Your task to perform on an android device: What's the US dollar exchange rateagainst the Swiss Franc? Image 0: 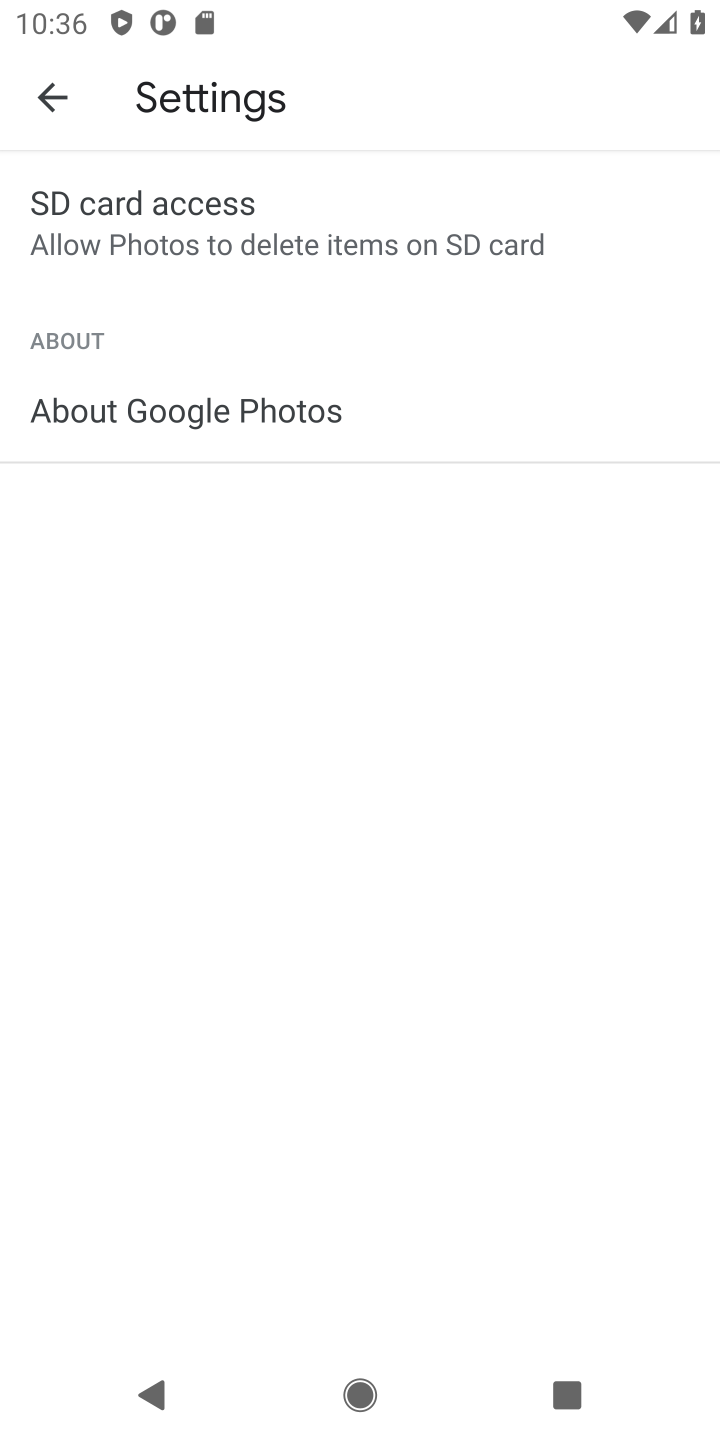
Step 0: press home button
Your task to perform on an android device: What's the US dollar exchange rateagainst the Swiss Franc? Image 1: 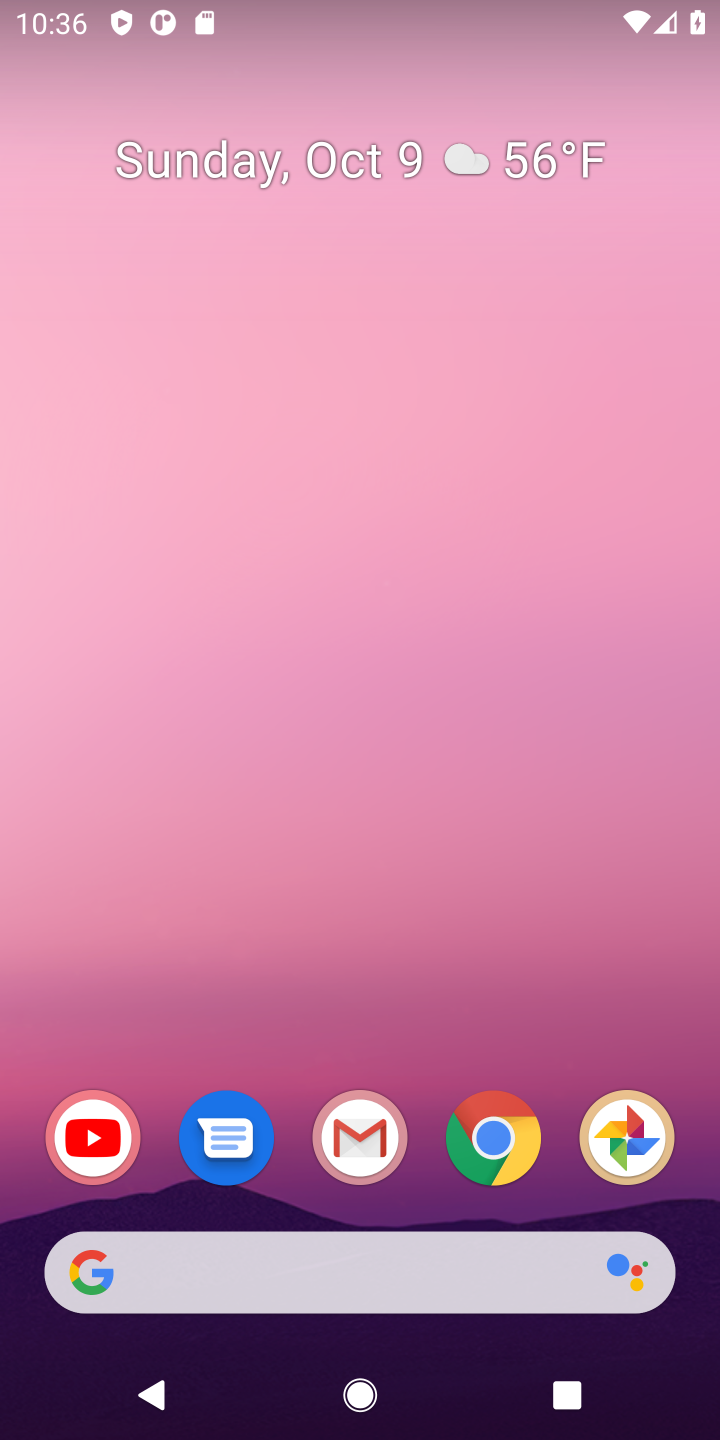
Step 1: drag from (453, 1056) to (489, 129)
Your task to perform on an android device: What's the US dollar exchange rateagainst the Swiss Franc? Image 2: 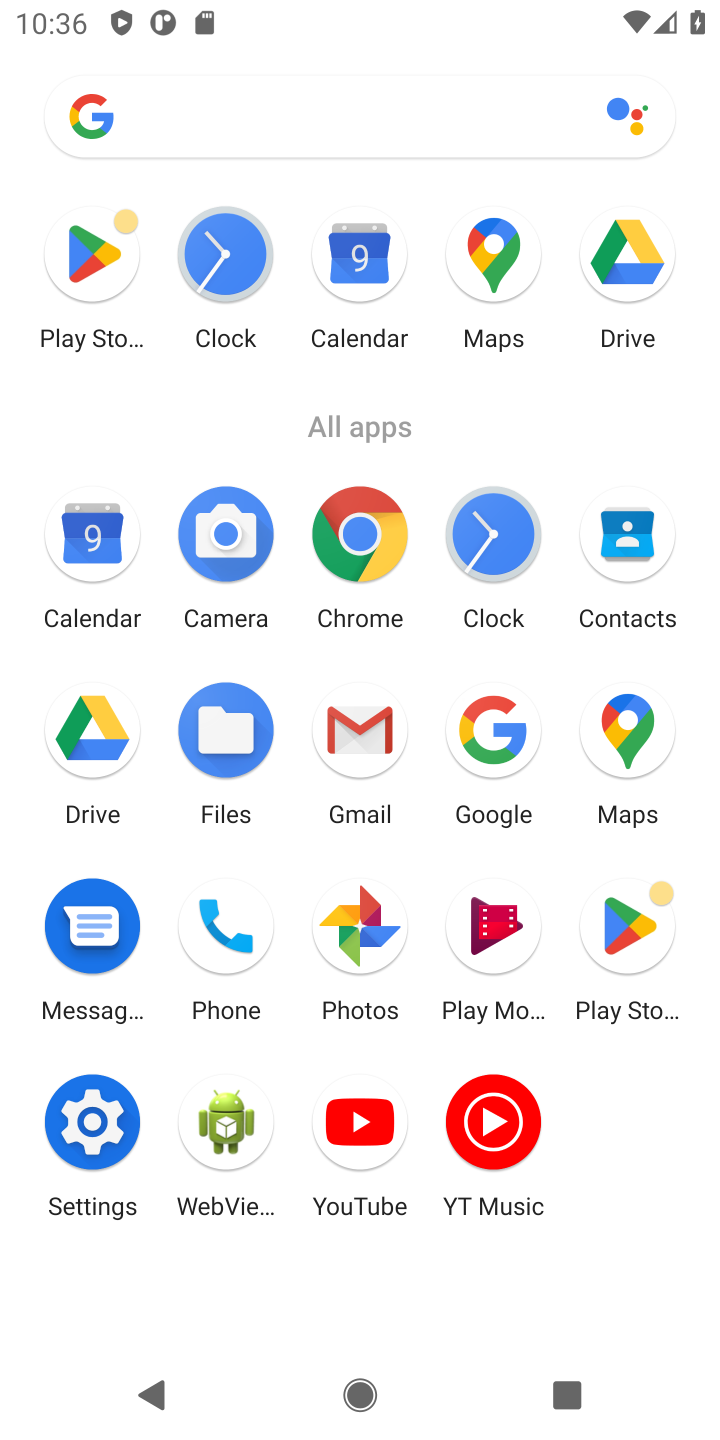
Step 2: click (348, 538)
Your task to perform on an android device: What's the US dollar exchange rateagainst the Swiss Franc? Image 3: 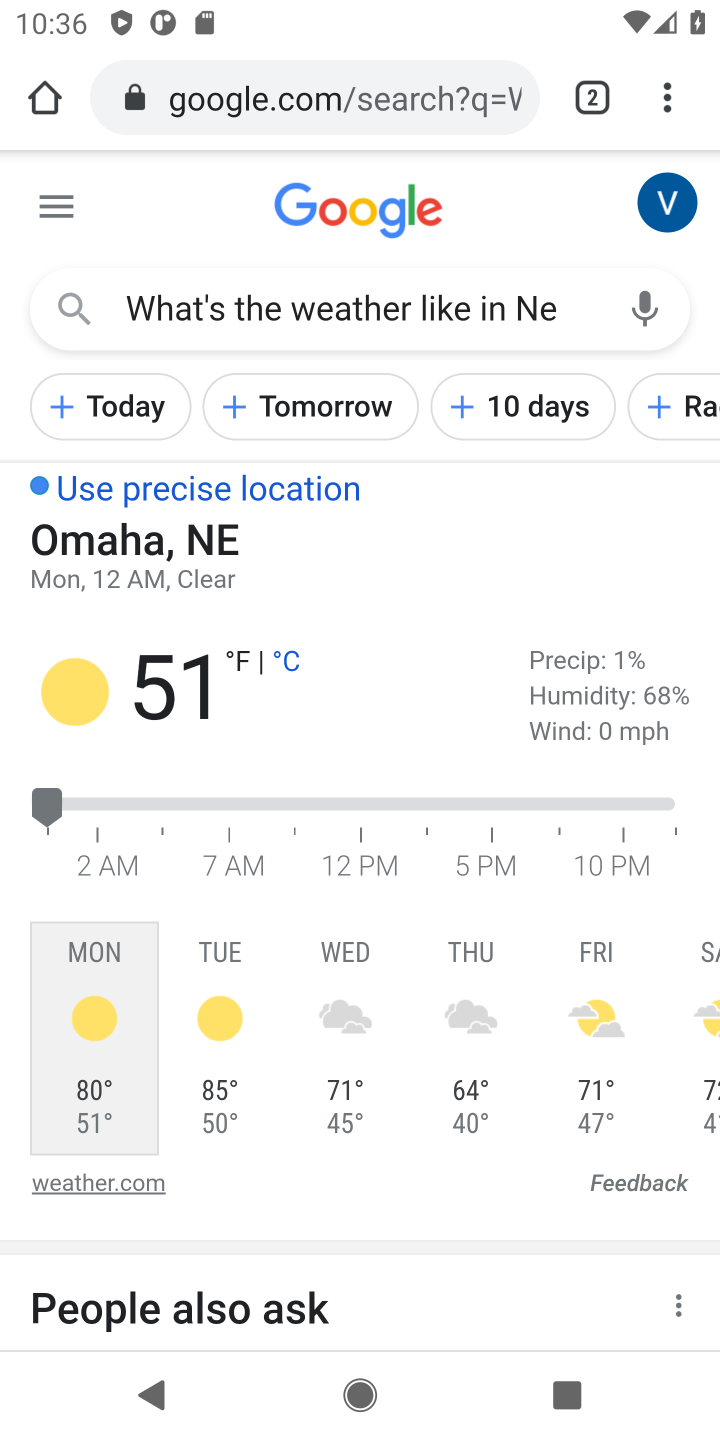
Step 3: click (561, 293)
Your task to perform on an android device: What's the US dollar exchange rateagainst the Swiss Franc? Image 4: 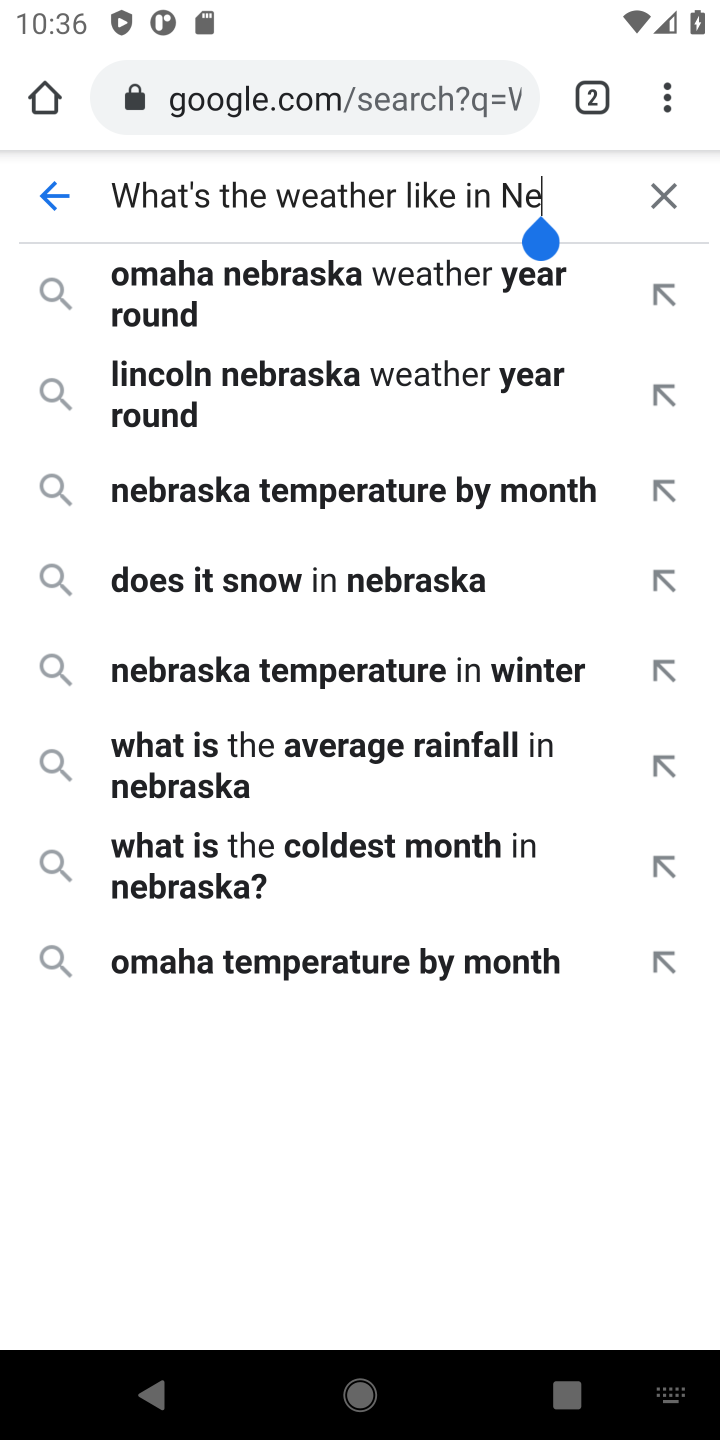
Step 4: click (435, 96)
Your task to perform on an android device: What's the US dollar exchange rateagainst the Swiss Franc? Image 5: 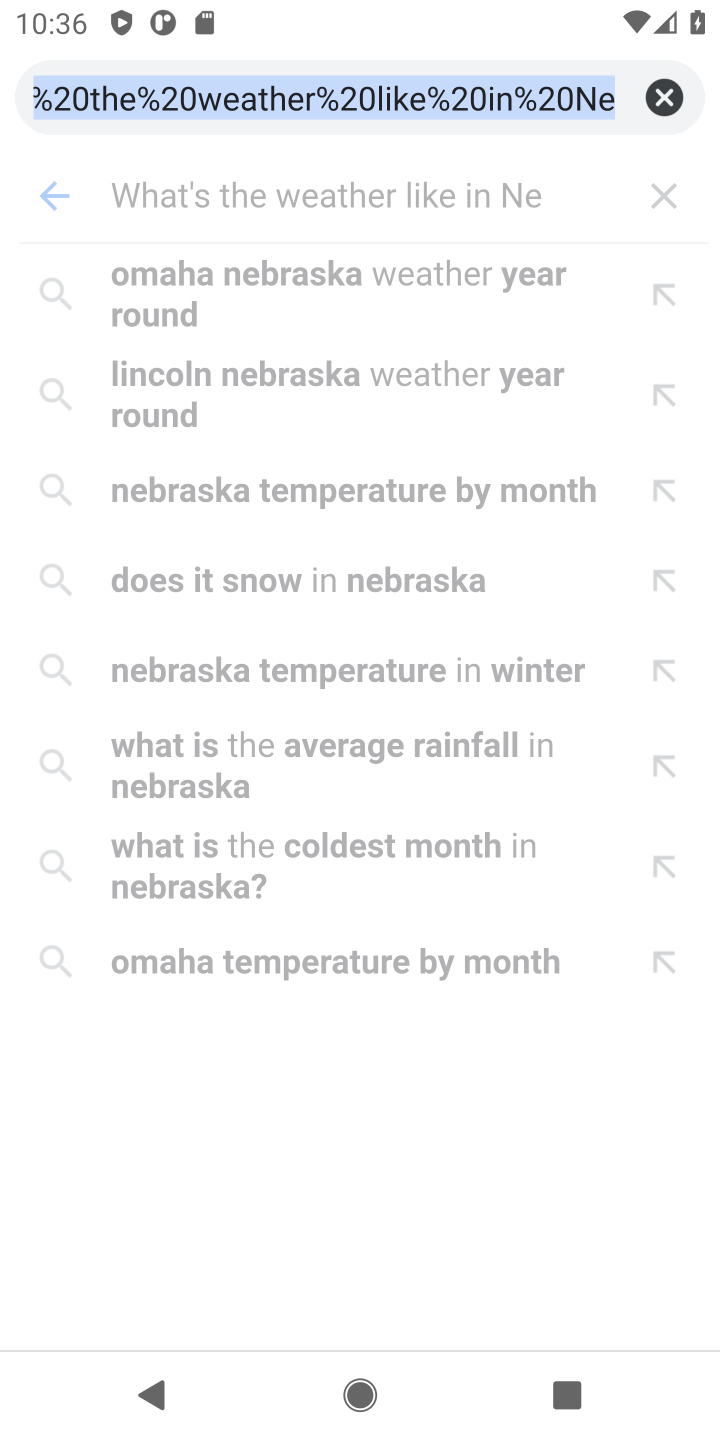
Step 5: click (655, 87)
Your task to perform on an android device: What's the US dollar exchange rateagainst the Swiss Franc? Image 6: 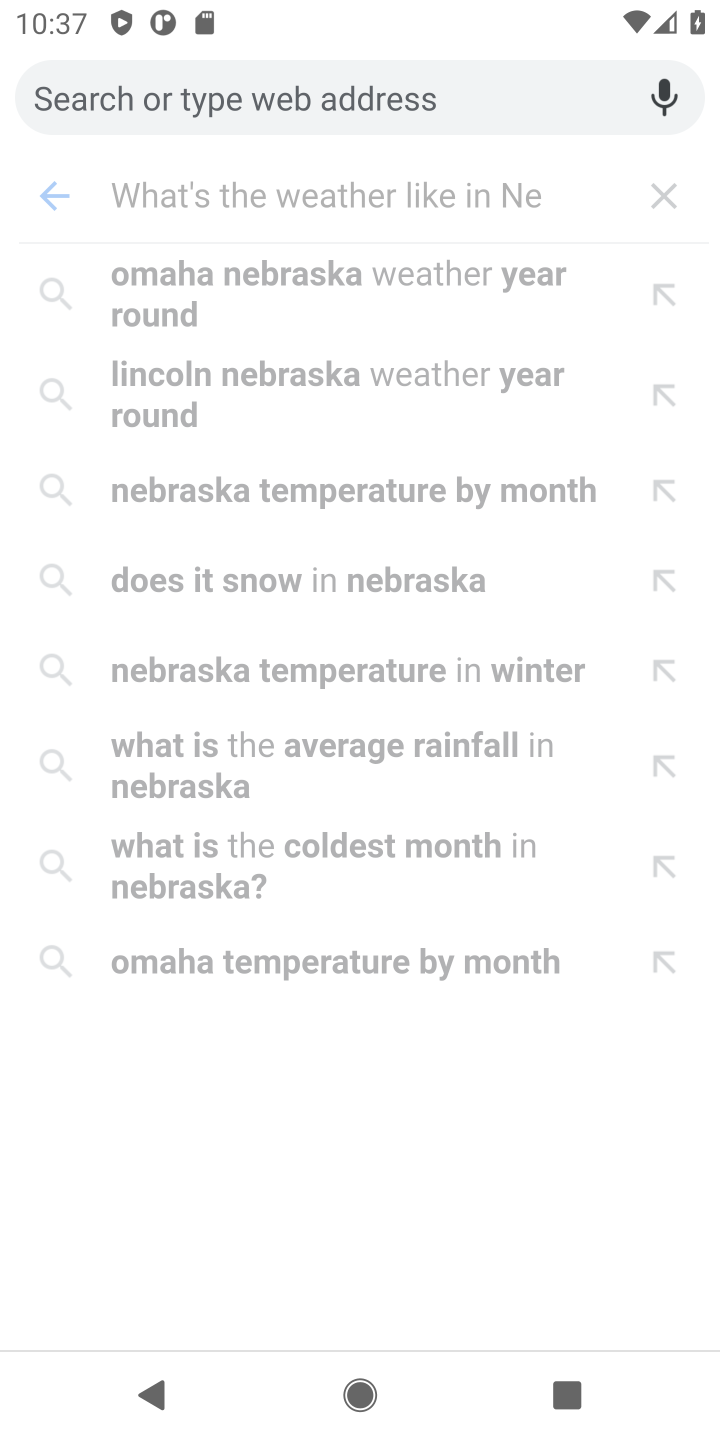
Step 6: type "What's the US dollar exchange rateagainst the Swiss Franc?"
Your task to perform on an android device: What's the US dollar exchange rateagainst the Swiss Franc? Image 7: 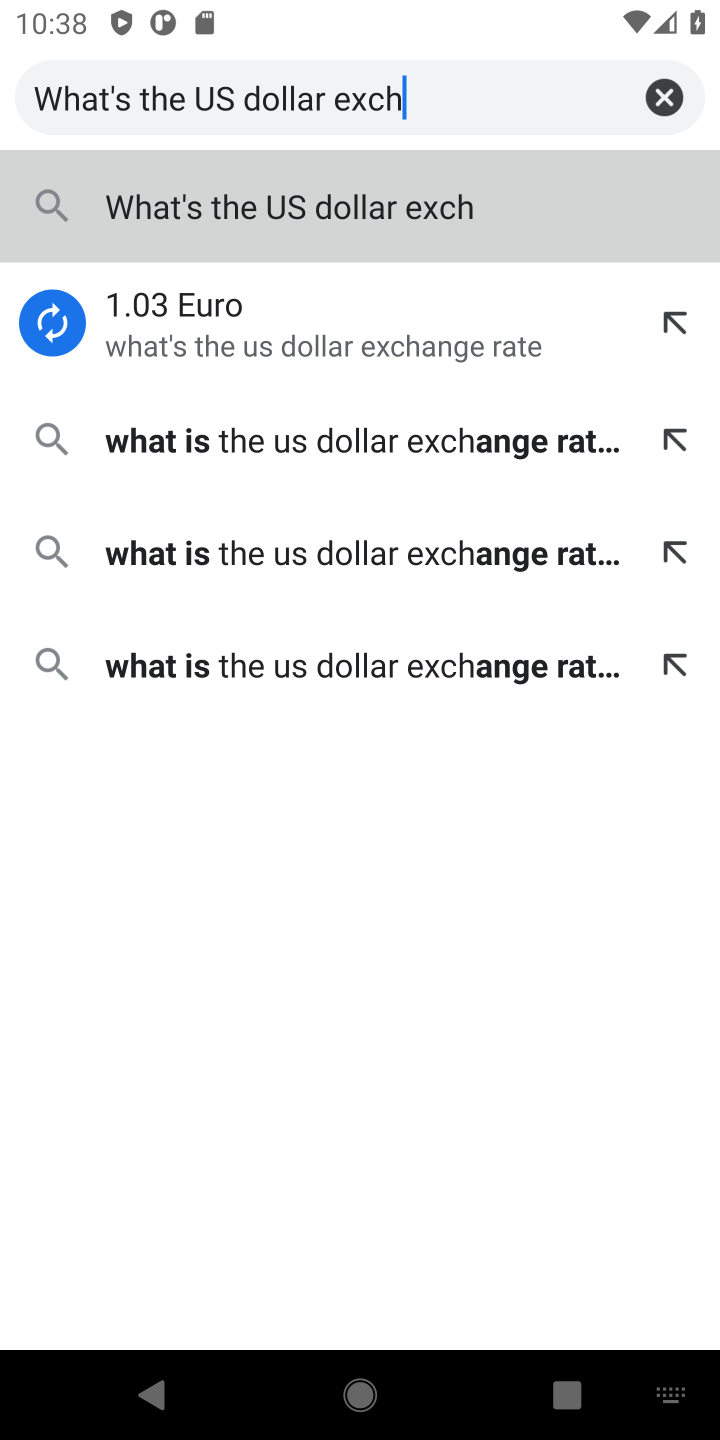
Step 7: click (251, 204)
Your task to perform on an android device: What's the US dollar exchange rateagainst the Swiss Franc? Image 8: 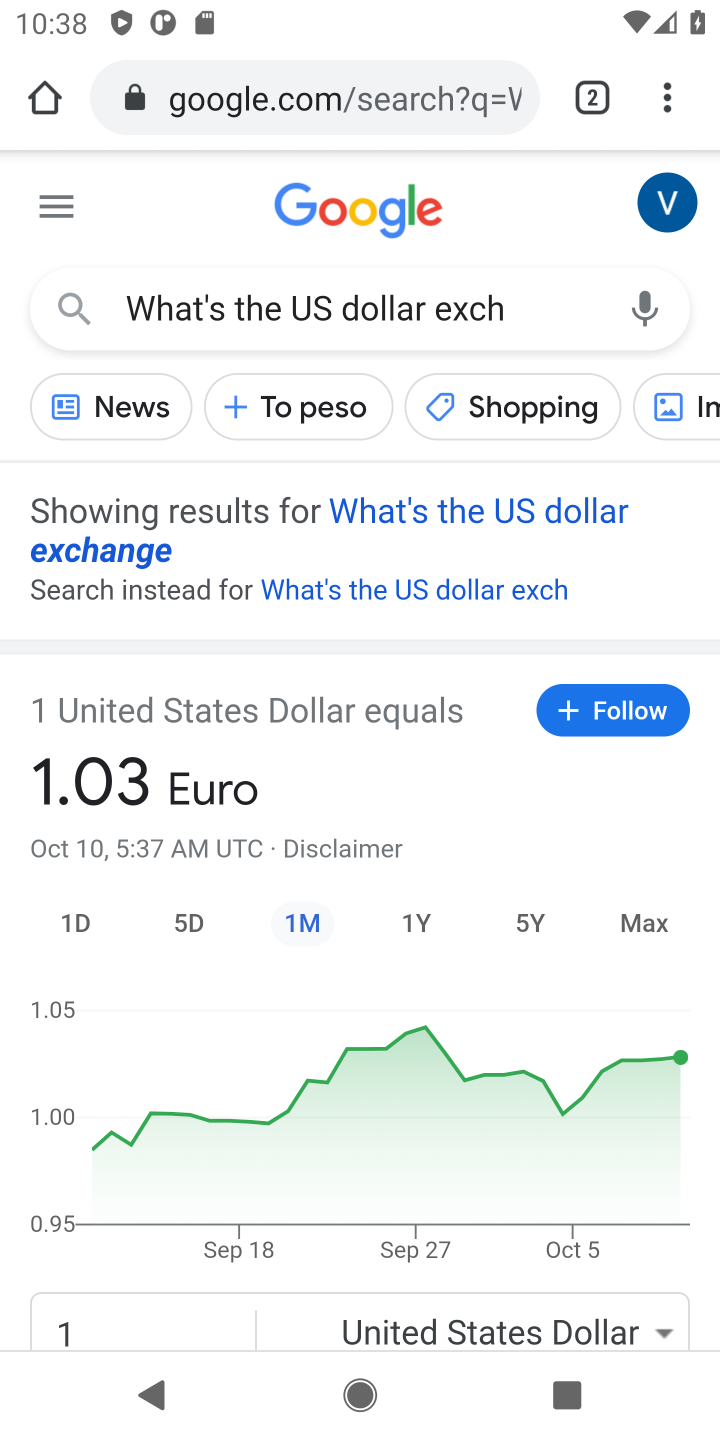
Step 8: task complete